Your task to perform on an android device: turn on sleep mode Image 0: 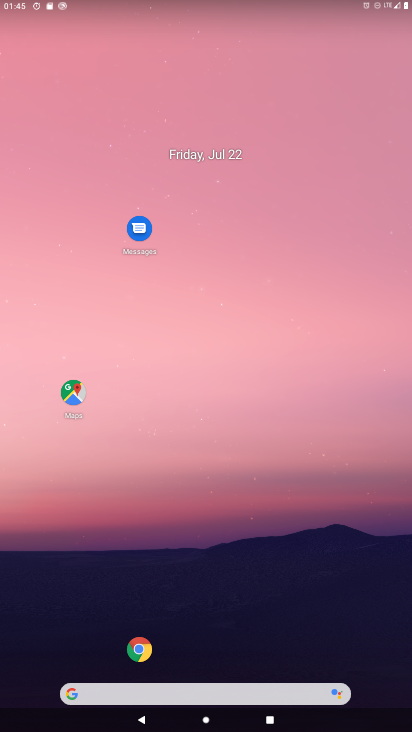
Step 0: drag from (188, 398) to (230, 298)
Your task to perform on an android device: turn on sleep mode Image 1: 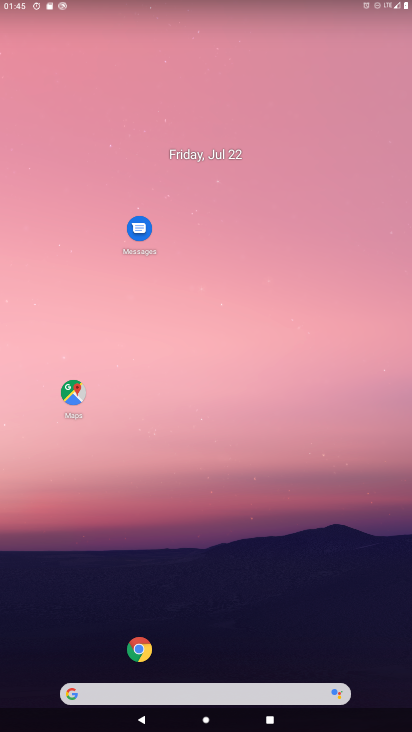
Step 1: drag from (13, 678) to (182, 296)
Your task to perform on an android device: turn on sleep mode Image 2: 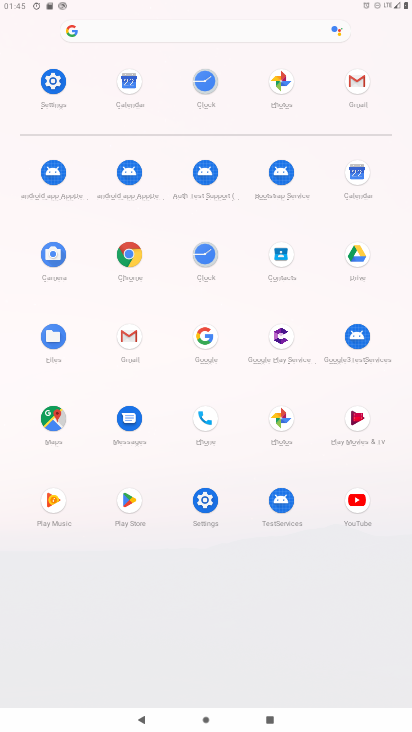
Step 2: click (199, 514)
Your task to perform on an android device: turn on sleep mode Image 3: 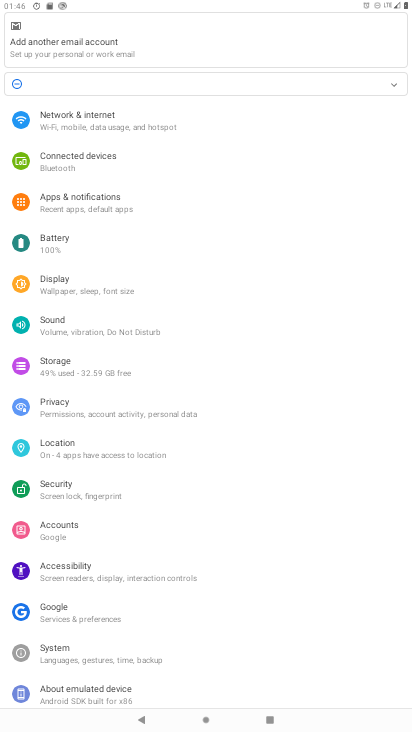
Step 3: click (83, 404)
Your task to perform on an android device: turn on sleep mode Image 4: 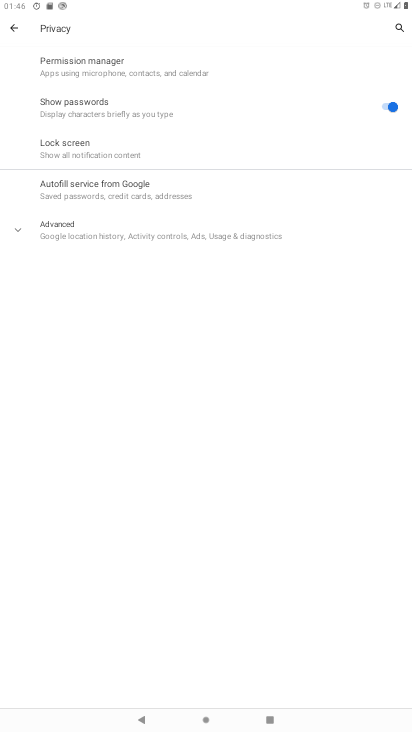
Step 4: task complete